Your task to perform on an android device: Go to display settings Image 0: 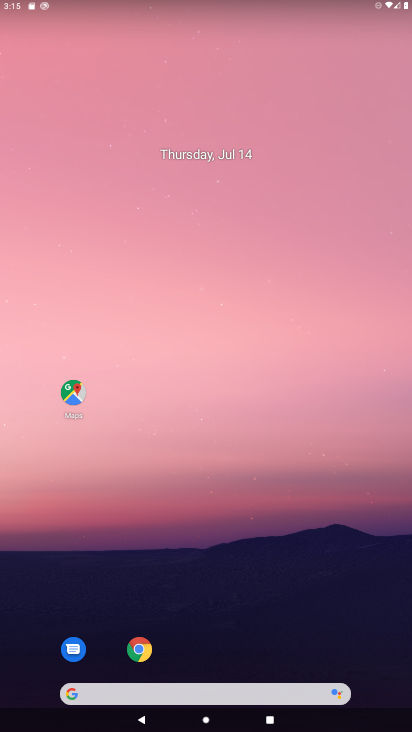
Step 0: drag from (235, 622) to (239, 175)
Your task to perform on an android device: Go to display settings Image 1: 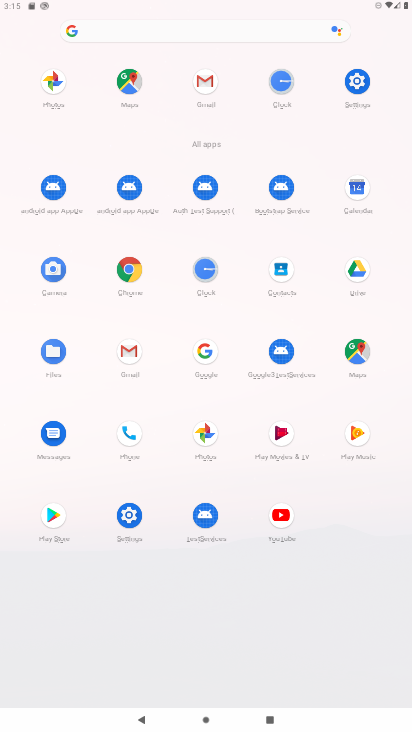
Step 1: click (356, 77)
Your task to perform on an android device: Go to display settings Image 2: 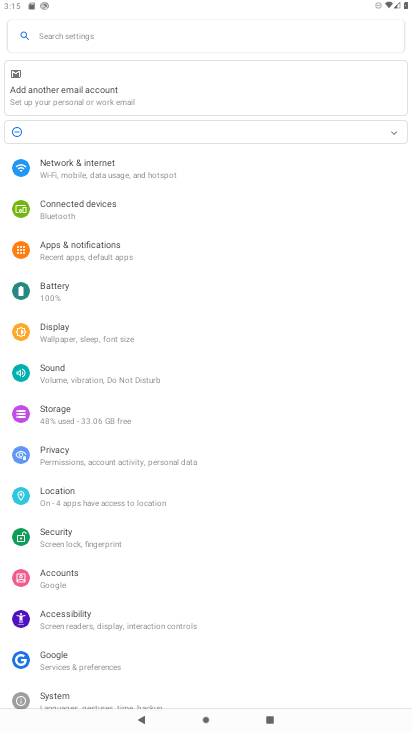
Step 2: click (81, 614)
Your task to perform on an android device: Go to display settings Image 3: 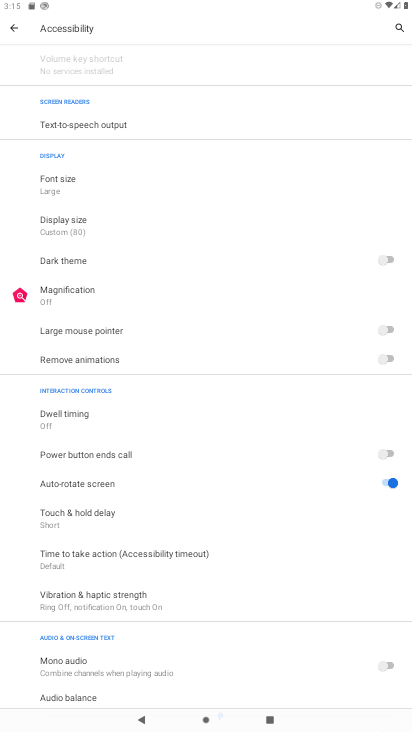
Step 3: click (10, 31)
Your task to perform on an android device: Go to display settings Image 4: 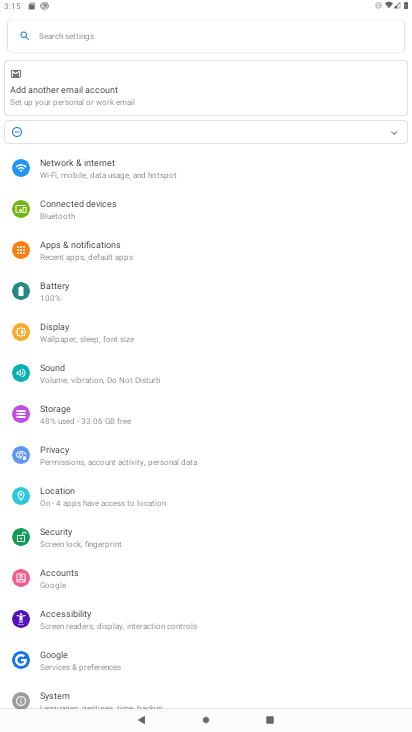
Step 4: click (80, 321)
Your task to perform on an android device: Go to display settings Image 5: 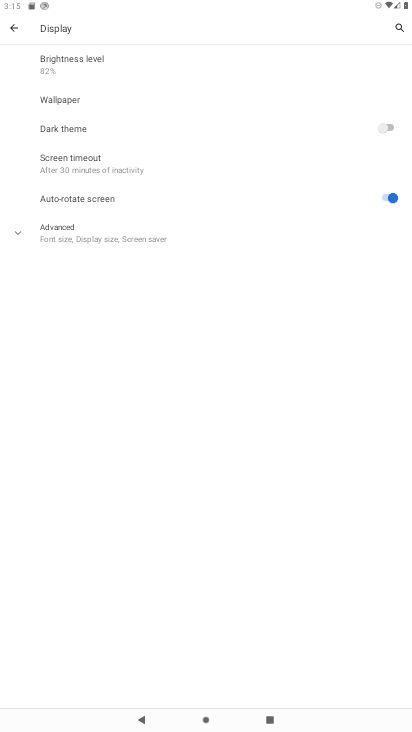
Step 5: task complete